Your task to perform on an android device: visit the assistant section in the google photos Image 0: 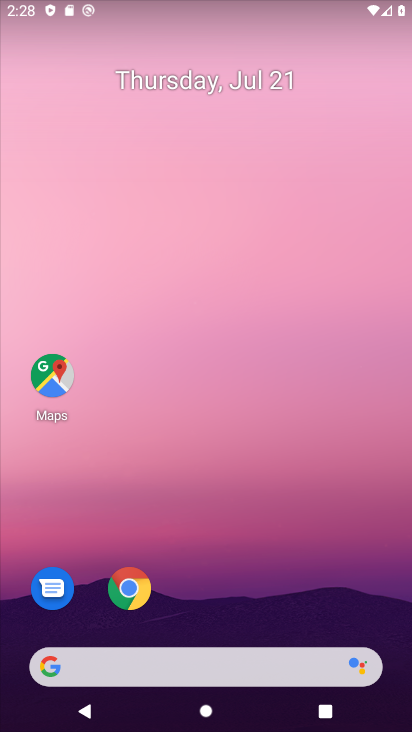
Step 0: drag from (264, 569) to (213, 11)
Your task to perform on an android device: visit the assistant section in the google photos Image 1: 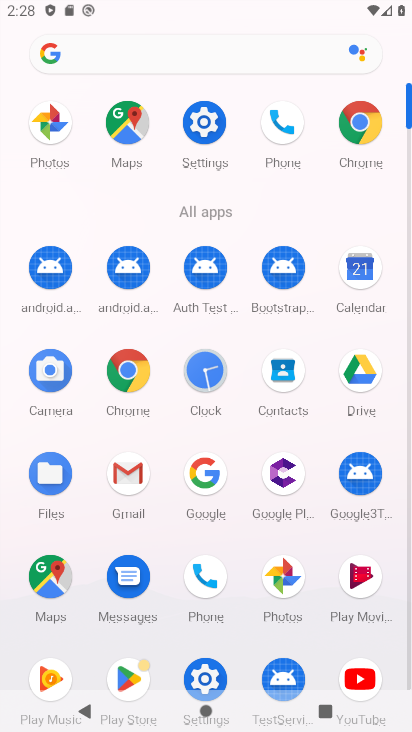
Step 1: click (51, 121)
Your task to perform on an android device: visit the assistant section in the google photos Image 2: 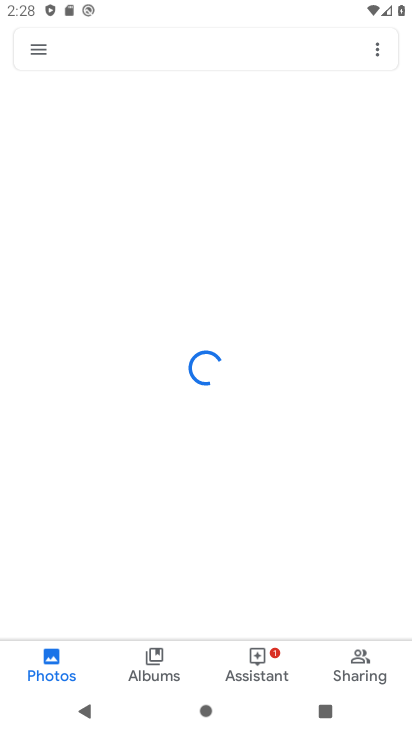
Step 2: click (246, 666)
Your task to perform on an android device: visit the assistant section in the google photos Image 3: 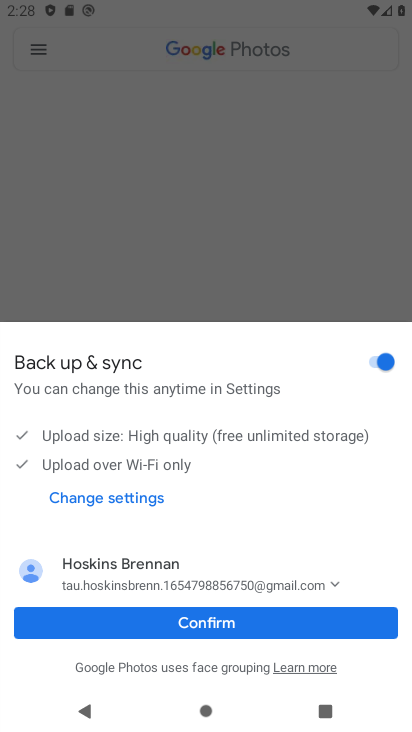
Step 3: click (238, 622)
Your task to perform on an android device: visit the assistant section in the google photos Image 4: 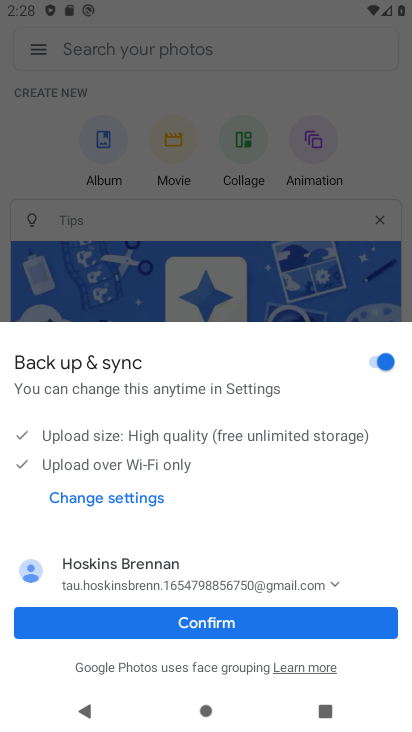
Step 4: click (209, 622)
Your task to perform on an android device: visit the assistant section in the google photos Image 5: 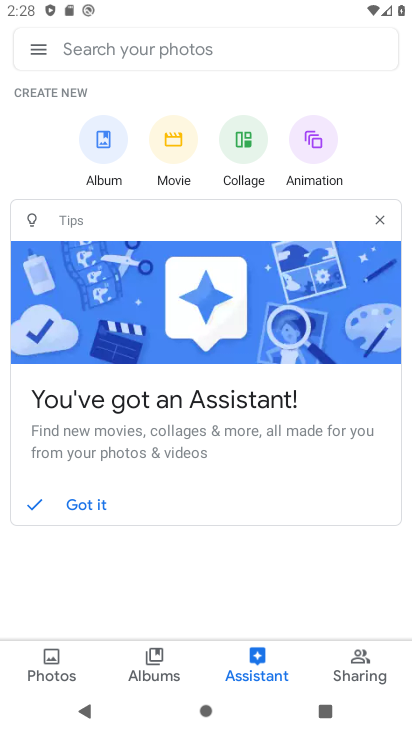
Step 5: task complete